Your task to perform on an android device: delete a single message in the gmail app Image 0: 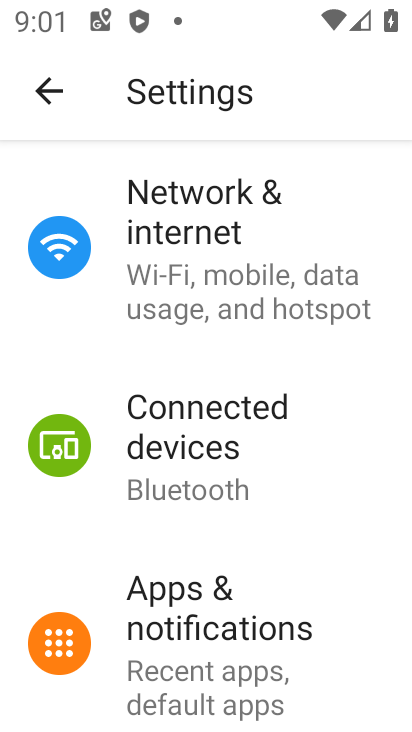
Step 0: press home button
Your task to perform on an android device: delete a single message in the gmail app Image 1: 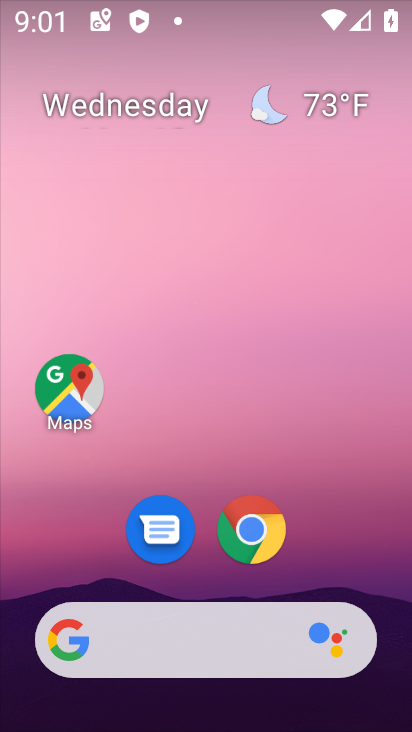
Step 1: drag from (319, 556) to (376, 258)
Your task to perform on an android device: delete a single message in the gmail app Image 2: 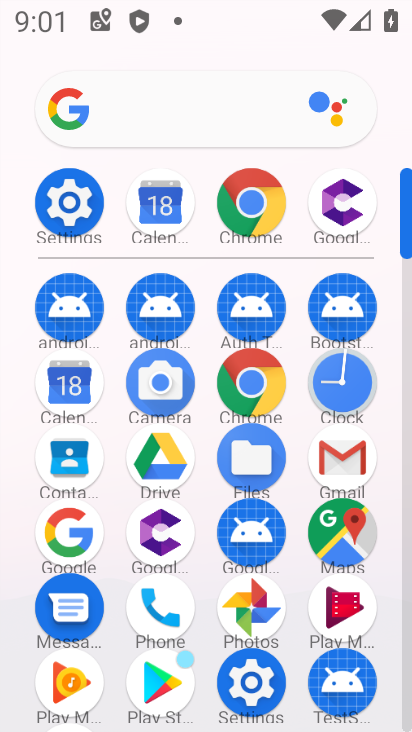
Step 2: click (353, 457)
Your task to perform on an android device: delete a single message in the gmail app Image 3: 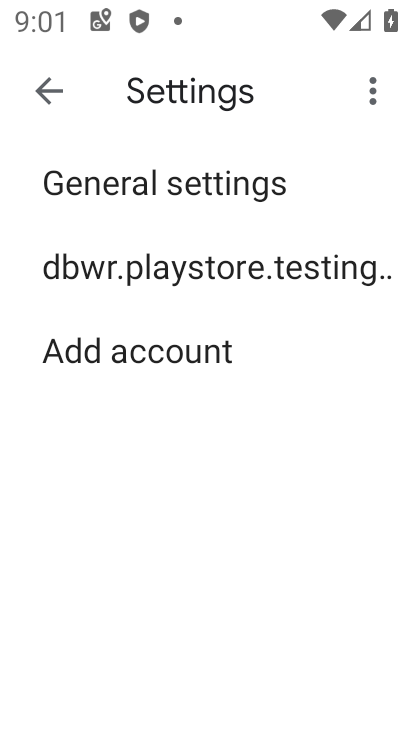
Step 3: click (46, 108)
Your task to perform on an android device: delete a single message in the gmail app Image 4: 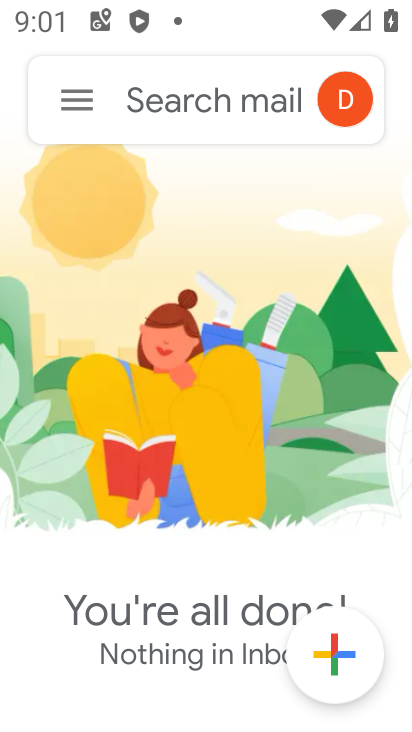
Step 4: click (80, 104)
Your task to perform on an android device: delete a single message in the gmail app Image 5: 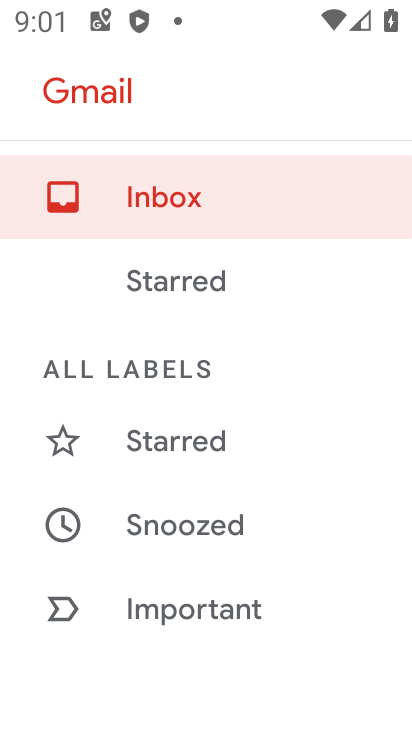
Step 5: drag from (301, 561) to (292, 451)
Your task to perform on an android device: delete a single message in the gmail app Image 6: 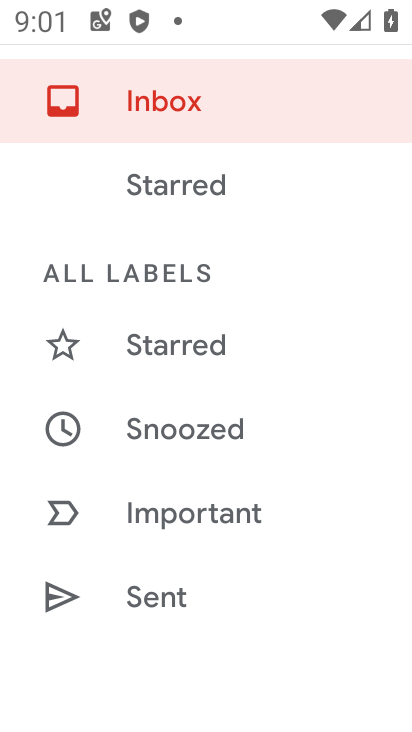
Step 6: drag from (321, 557) to (318, 519)
Your task to perform on an android device: delete a single message in the gmail app Image 7: 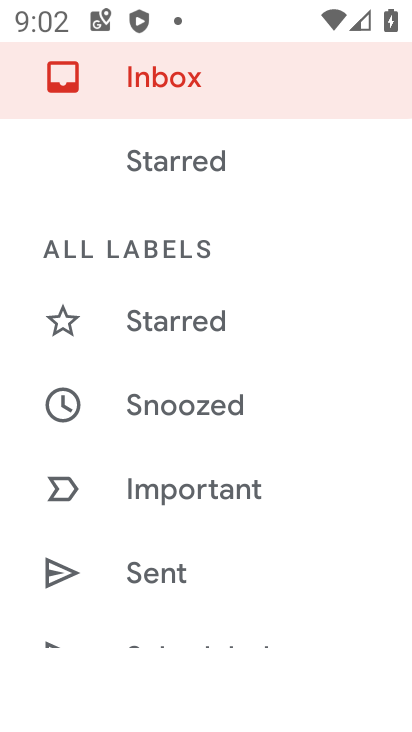
Step 7: drag from (358, 310) to (345, 500)
Your task to perform on an android device: delete a single message in the gmail app Image 8: 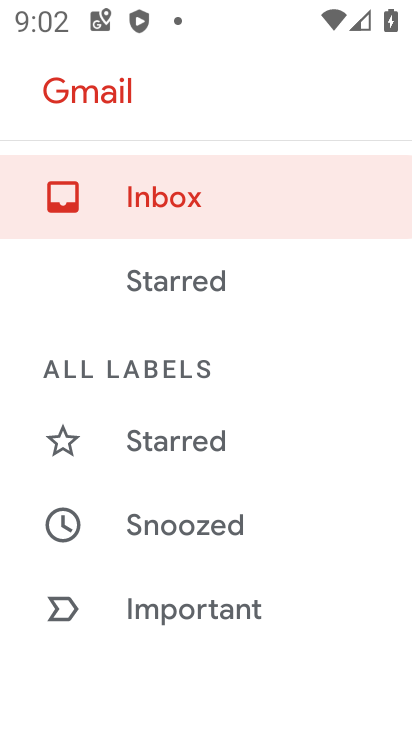
Step 8: click (235, 190)
Your task to perform on an android device: delete a single message in the gmail app Image 9: 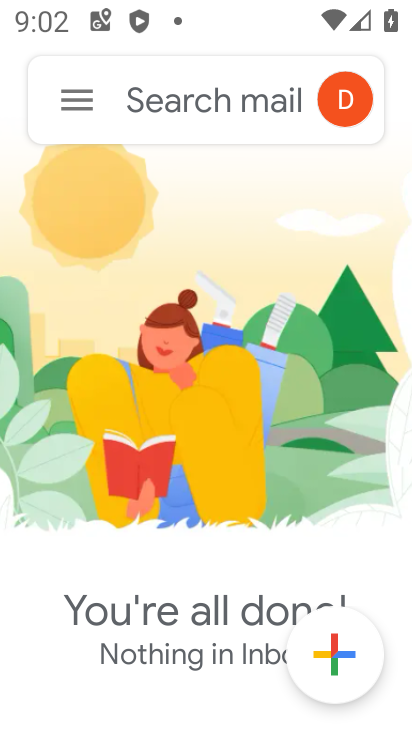
Step 9: task complete